Your task to perform on an android device: Open Youtube and go to the subscriptions tab Image 0: 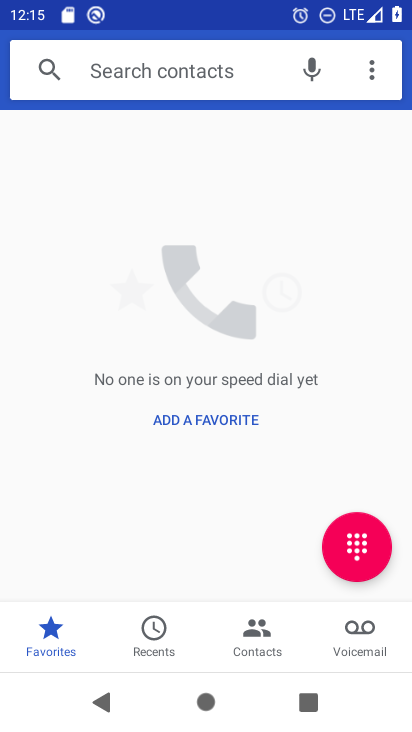
Step 0: press home button
Your task to perform on an android device: Open Youtube and go to the subscriptions tab Image 1: 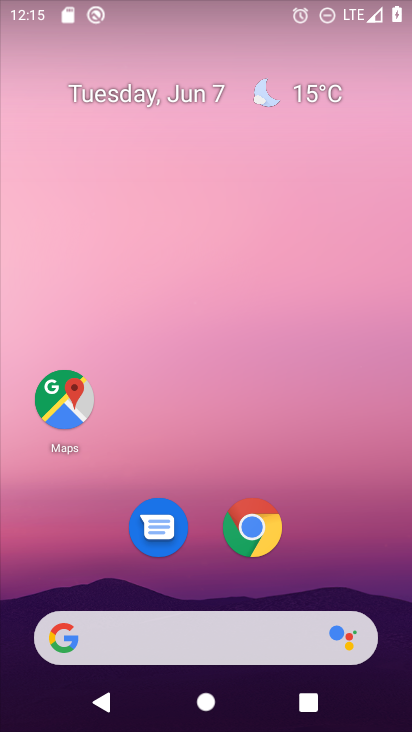
Step 1: drag from (334, 563) to (353, 80)
Your task to perform on an android device: Open Youtube and go to the subscriptions tab Image 2: 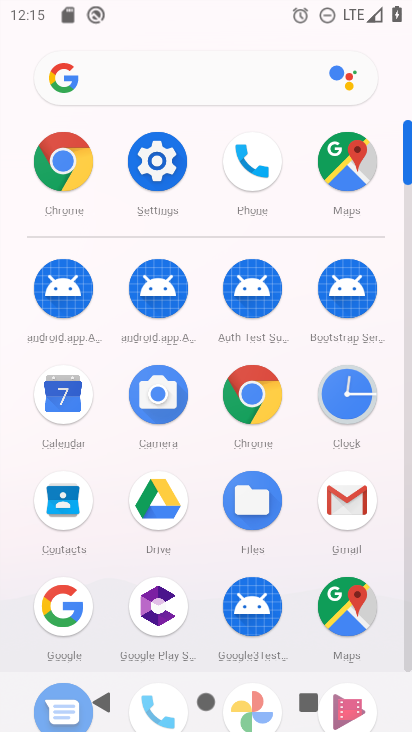
Step 2: drag from (293, 544) to (275, 269)
Your task to perform on an android device: Open Youtube and go to the subscriptions tab Image 3: 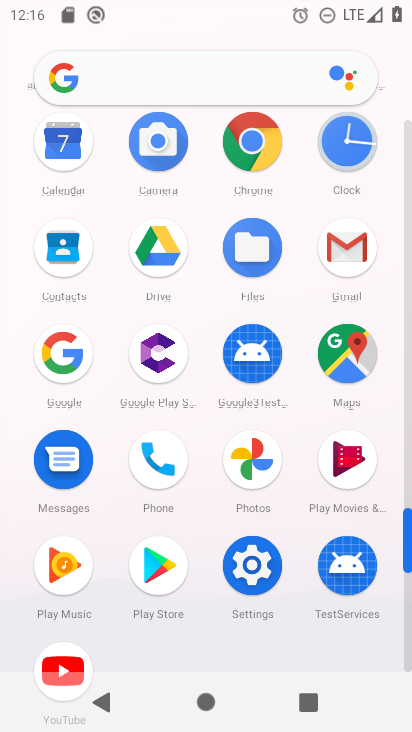
Step 3: click (57, 678)
Your task to perform on an android device: Open Youtube and go to the subscriptions tab Image 4: 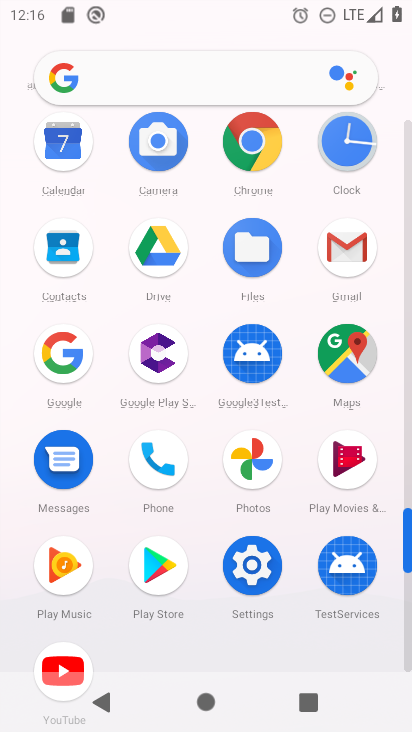
Step 4: drag from (197, 585) to (207, 276)
Your task to perform on an android device: Open Youtube and go to the subscriptions tab Image 5: 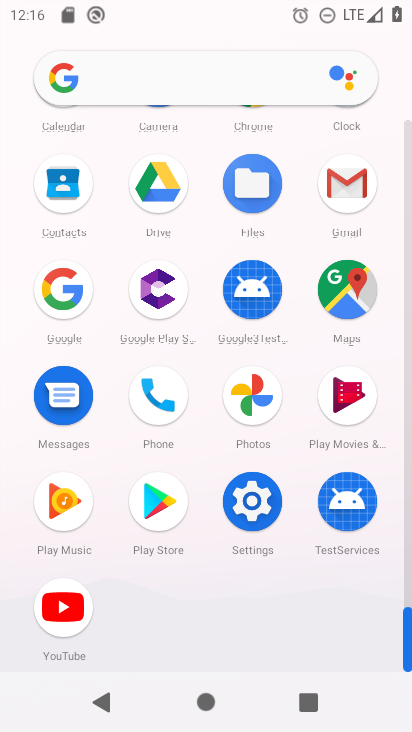
Step 5: click (55, 613)
Your task to perform on an android device: Open Youtube and go to the subscriptions tab Image 6: 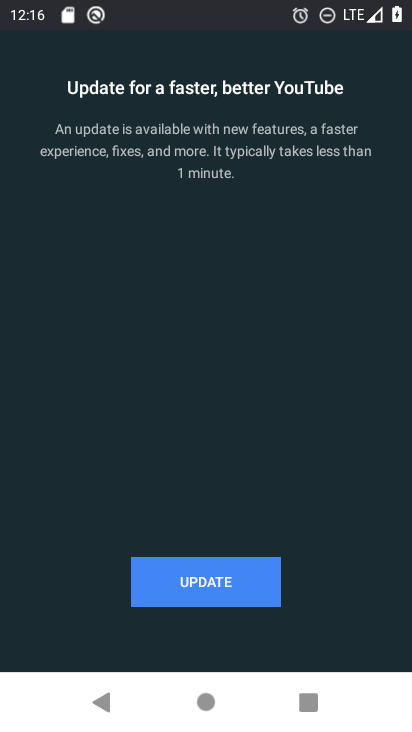
Step 6: click (240, 588)
Your task to perform on an android device: Open Youtube and go to the subscriptions tab Image 7: 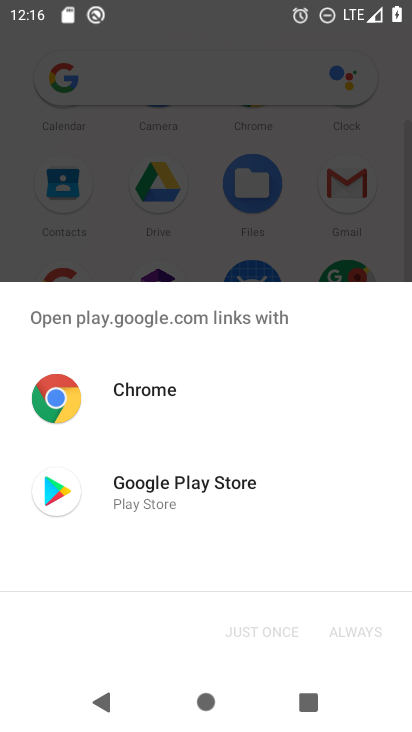
Step 7: click (174, 486)
Your task to perform on an android device: Open Youtube and go to the subscriptions tab Image 8: 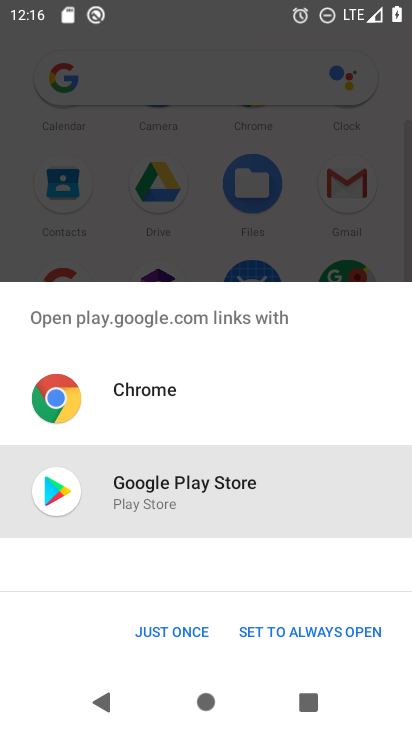
Step 8: click (169, 631)
Your task to perform on an android device: Open Youtube and go to the subscriptions tab Image 9: 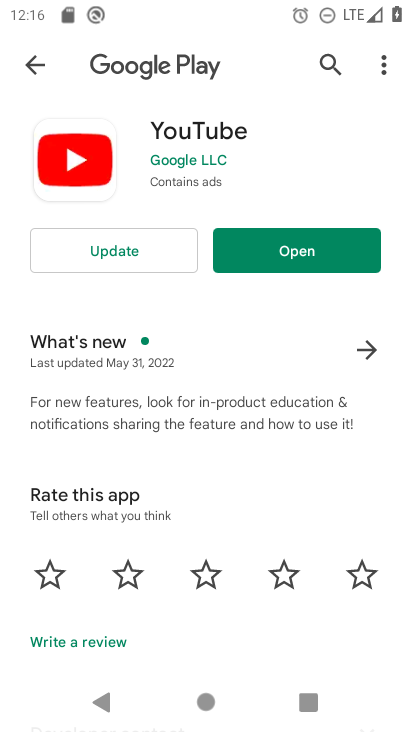
Step 9: click (144, 251)
Your task to perform on an android device: Open Youtube and go to the subscriptions tab Image 10: 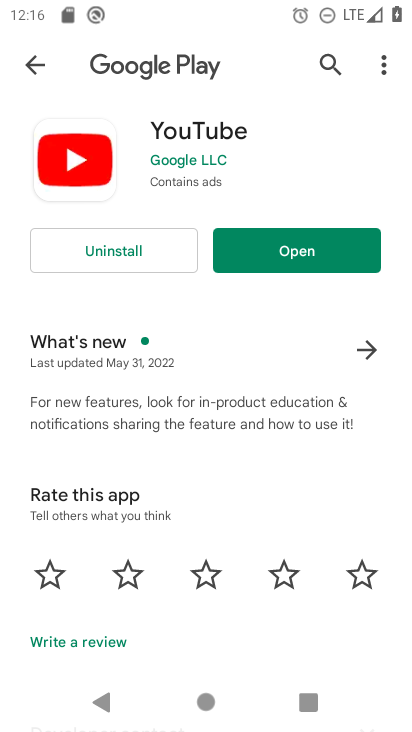
Step 10: click (311, 251)
Your task to perform on an android device: Open Youtube and go to the subscriptions tab Image 11: 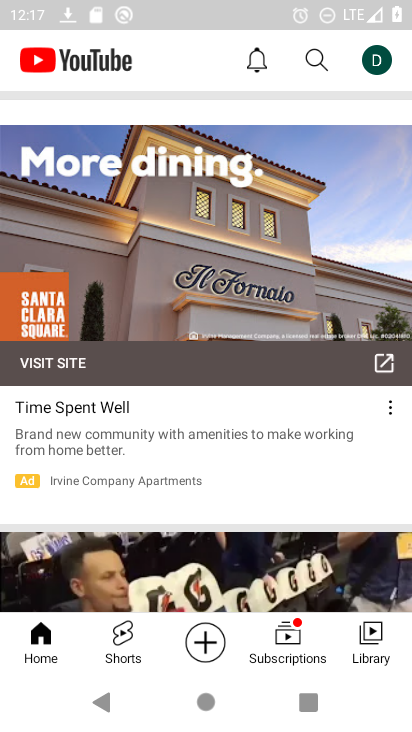
Step 11: click (282, 647)
Your task to perform on an android device: Open Youtube and go to the subscriptions tab Image 12: 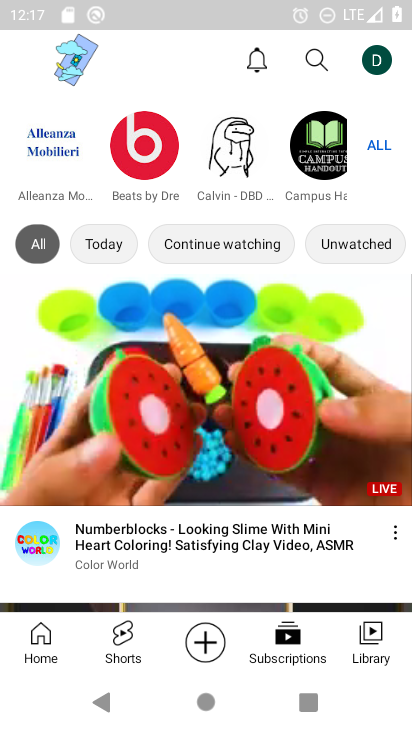
Step 12: task complete